Your task to perform on an android device: turn off notifications in google photos Image 0: 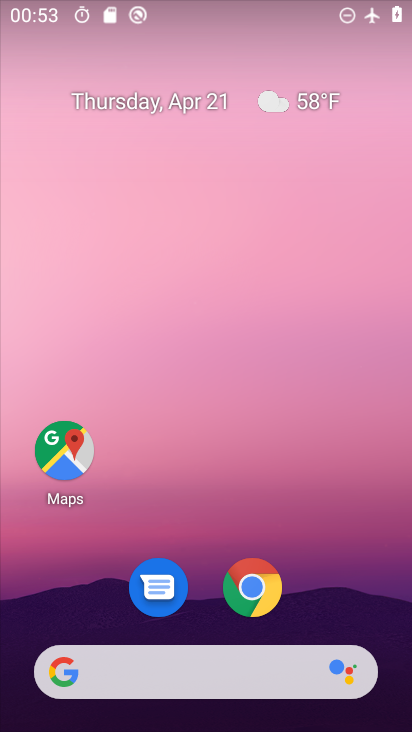
Step 0: drag from (203, 522) to (372, 8)
Your task to perform on an android device: turn off notifications in google photos Image 1: 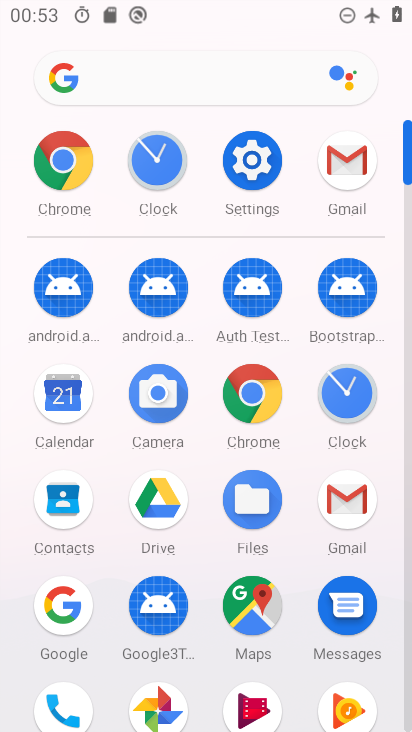
Step 1: click (149, 713)
Your task to perform on an android device: turn off notifications in google photos Image 2: 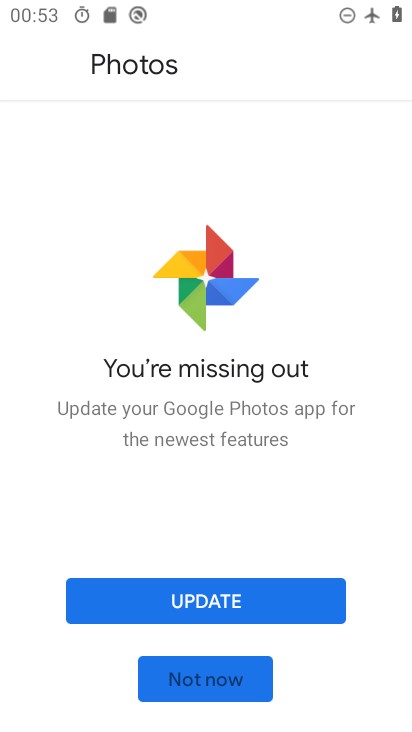
Step 2: click (213, 692)
Your task to perform on an android device: turn off notifications in google photos Image 3: 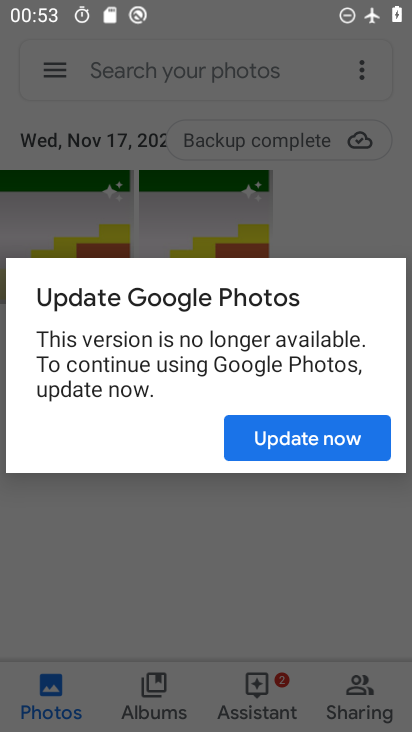
Step 3: click (268, 442)
Your task to perform on an android device: turn off notifications in google photos Image 4: 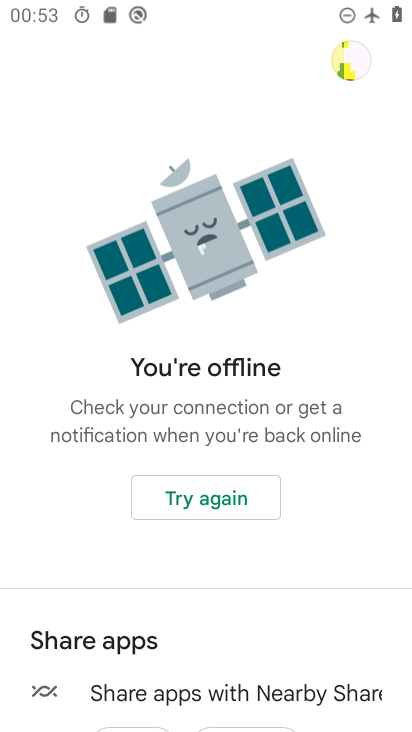
Step 4: press back button
Your task to perform on an android device: turn off notifications in google photos Image 5: 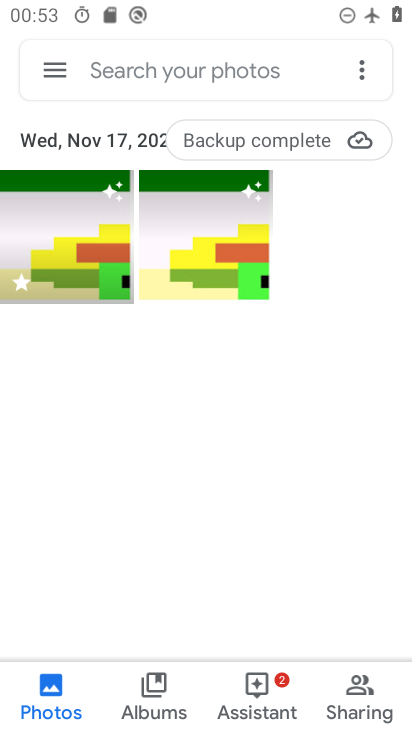
Step 5: click (59, 72)
Your task to perform on an android device: turn off notifications in google photos Image 6: 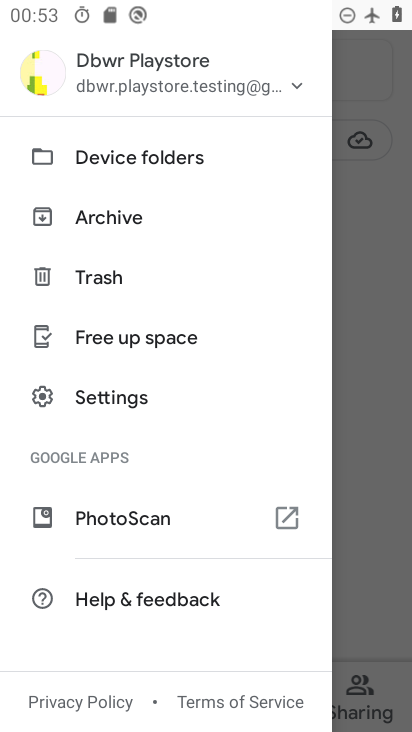
Step 6: drag from (100, 594) to (109, 432)
Your task to perform on an android device: turn off notifications in google photos Image 7: 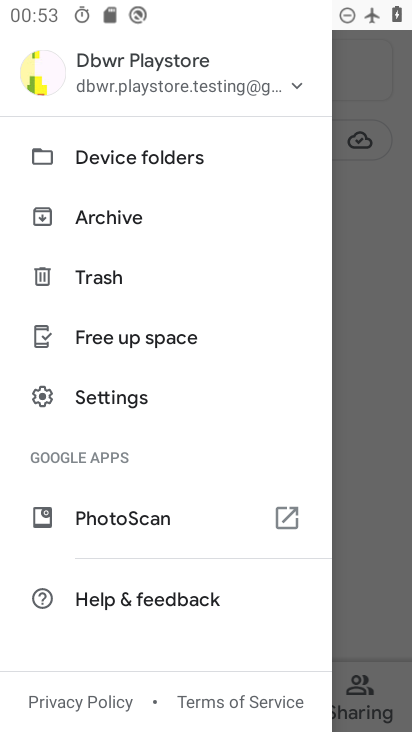
Step 7: click (118, 394)
Your task to perform on an android device: turn off notifications in google photos Image 8: 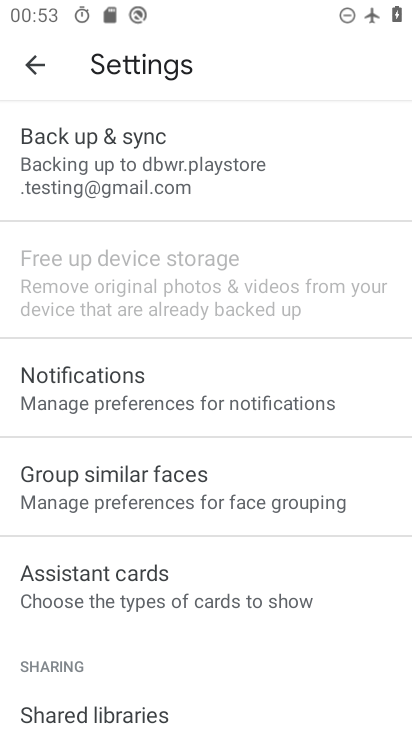
Step 8: click (109, 380)
Your task to perform on an android device: turn off notifications in google photos Image 9: 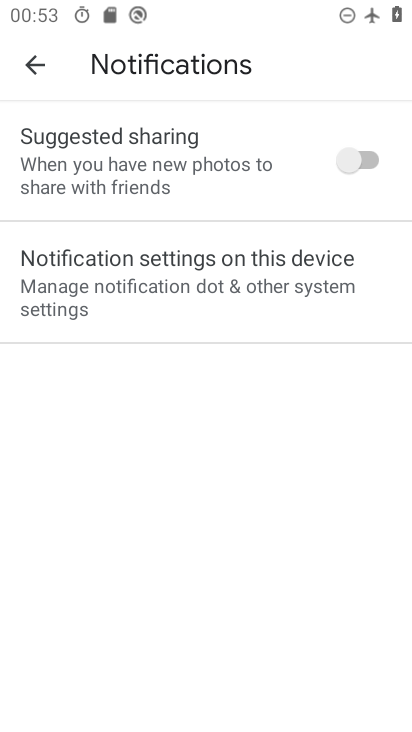
Step 9: click (122, 310)
Your task to perform on an android device: turn off notifications in google photos Image 10: 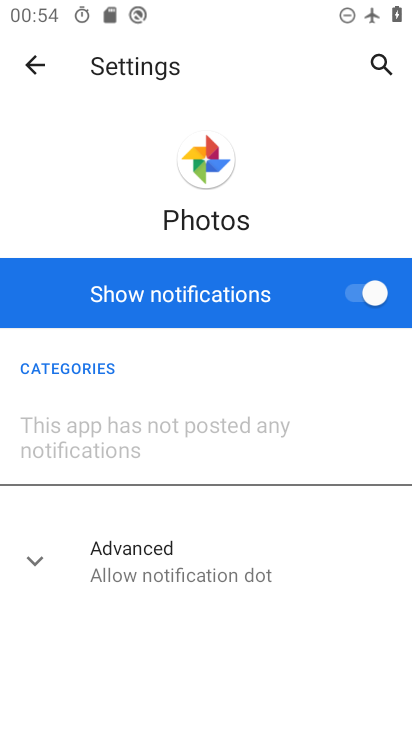
Step 10: click (344, 295)
Your task to perform on an android device: turn off notifications in google photos Image 11: 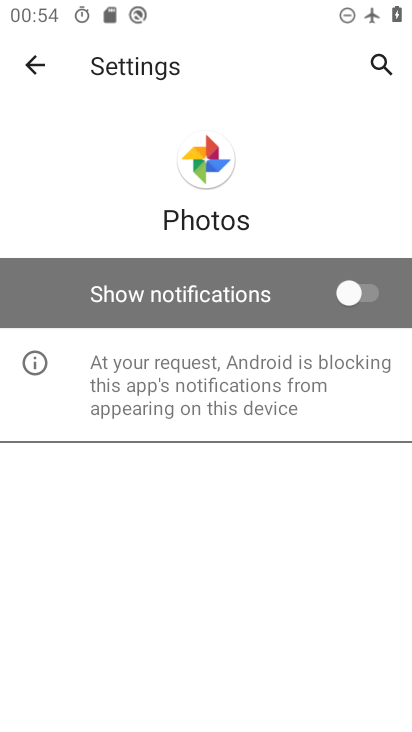
Step 11: task complete